Your task to perform on an android device: Open the map Image 0: 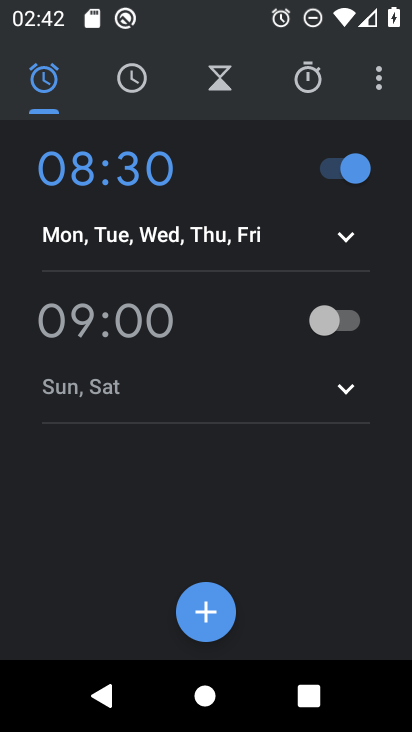
Step 0: press home button
Your task to perform on an android device: Open the map Image 1: 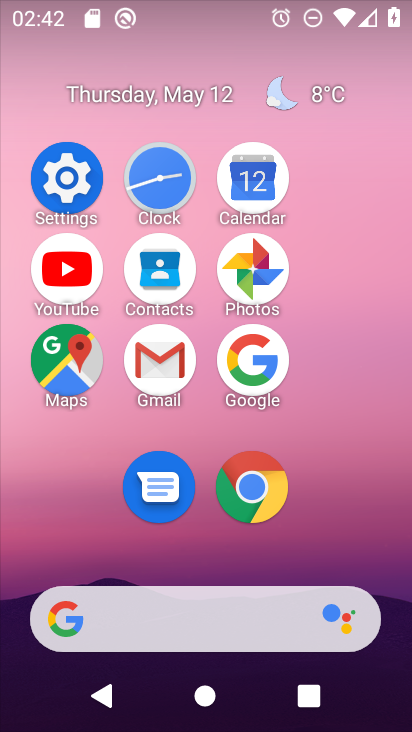
Step 1: click (95, 360)
Your task to perform on an android device: Open the map Image 2: 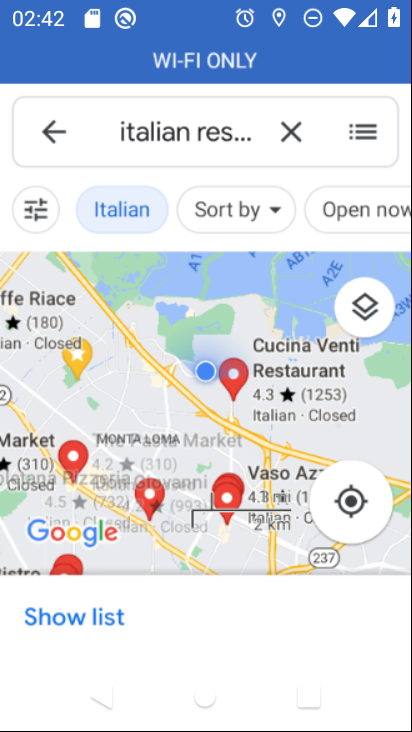
Step 2: task complete